Your task to perform on an android device: change notification settings in the gmail app Image 0: 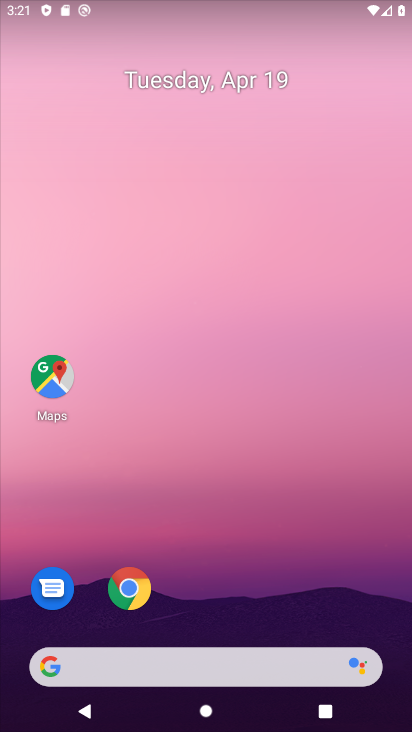
Step 0: drag from (240, 603) to (217, 140)
Your task to perform on an android device: change notification settings in the gmail app Image 1: 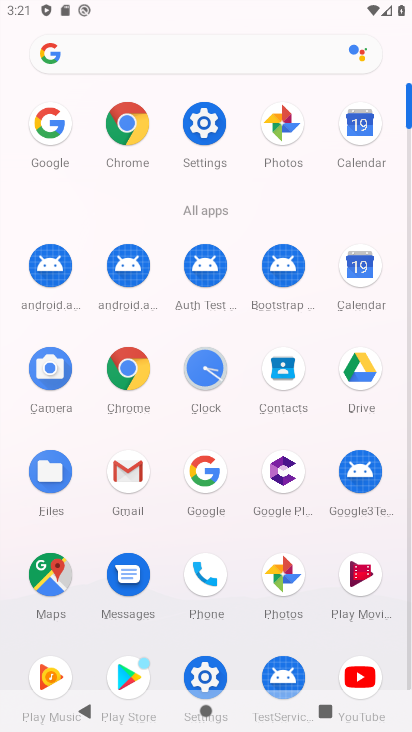
Step 1: click (207, 664)
Your task to perform on an android device: change notification settings in the gmail app Image 2: 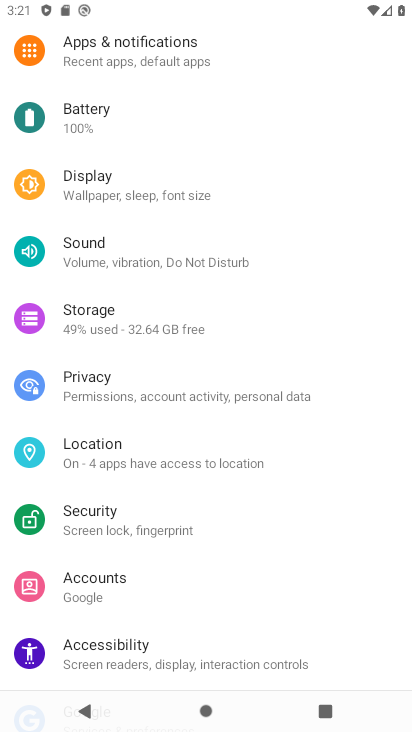
Step 2: press home button
Your task to perform on an android device: change notification settings in the gmail app Image 3: 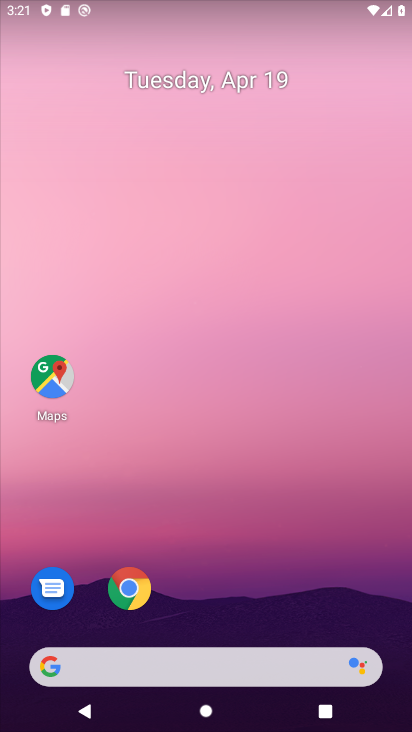
Step 3: drag from (247, 495) to (247, 88)
Your task to perform on an android device: change notification settings in the gmail app Image 4: 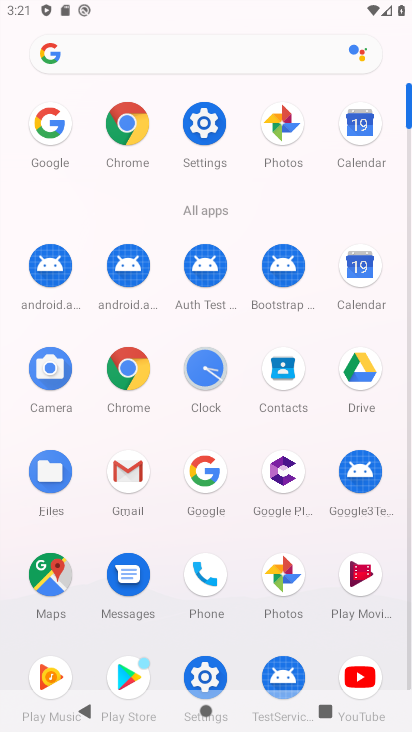
Step 4: click (121, 474)
Your task to perform on an android device: change notification settings in the gmail app Image 5: 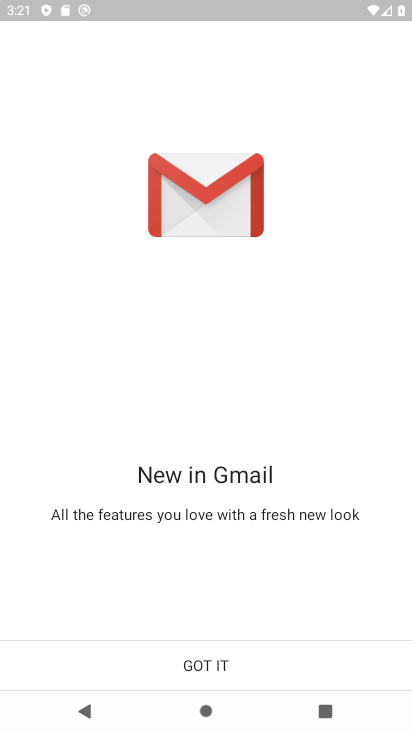
Step 5: click (208, 650)
Your task to perform on an android device: change notification settings in the gmail app Image 6: 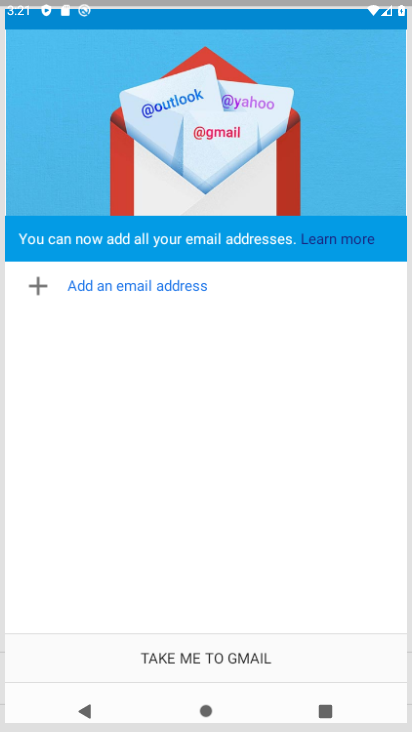
Step 6: click (210, 655)
Your task to perform on an android device: change notification settings in the gmail app Image 7: 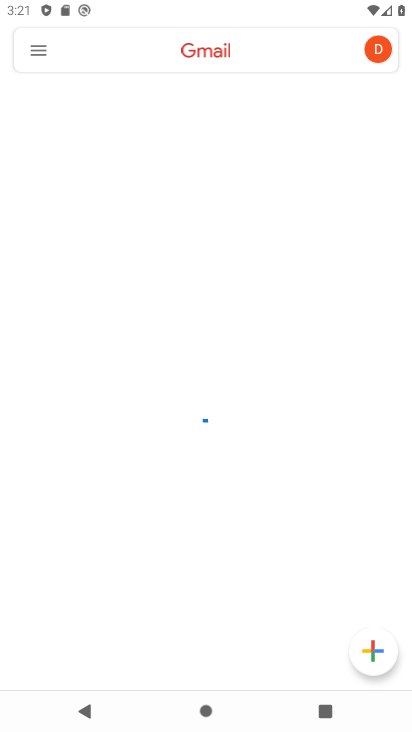
Step 7: click (36, 48)
Your task to perform on an android device: change notification settings in the gmail app Image 8: 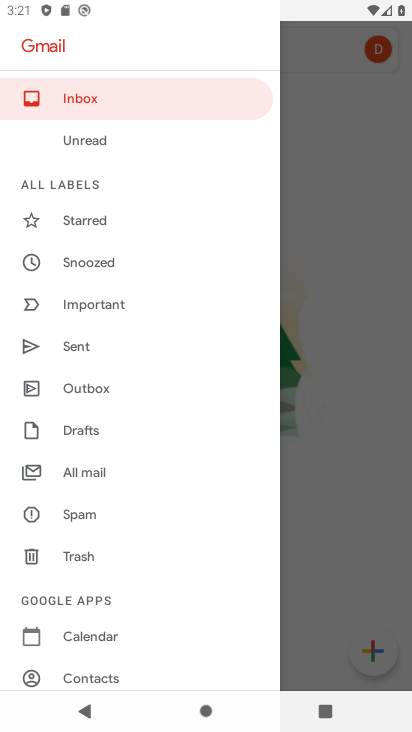
Step 8: drag from (112, 653) to (123, 302)
Your task to perform on an android device: change notification settings in the gmail app Image 9: 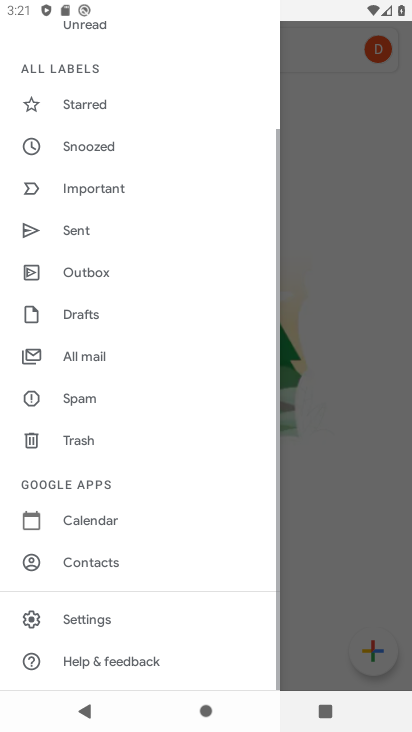
Step 9: click (90, 608)
Your task to perform on an android device: change notification settings in the gmail app Image 10: 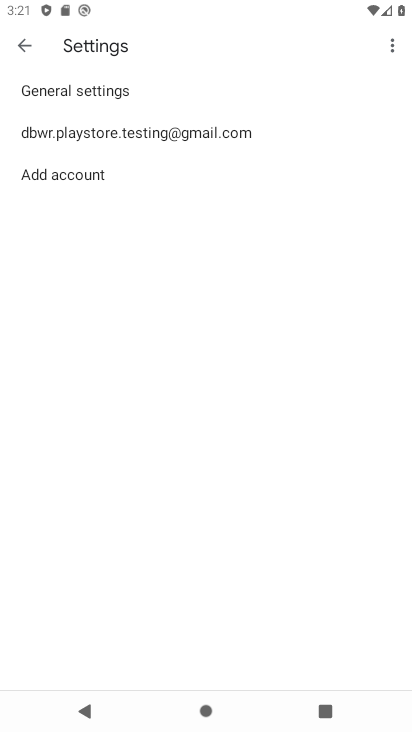
Step 10: click (121, 125)
Your task to perform on an android device: change notification settings in the gmail app Image 11: 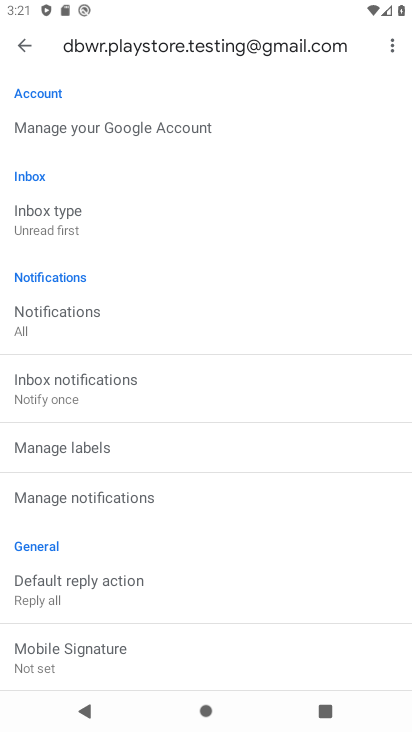
Step 11: click (132, 493)
Your task to perform on an android device: change notification settings in the gmail app Image 12: 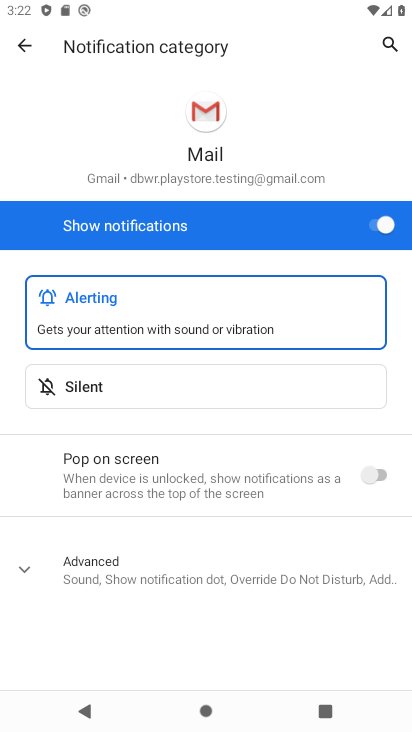
Step 12: click (379, 230)
Your task to perform on an android device: change notification settings in the gmail app Image 13: 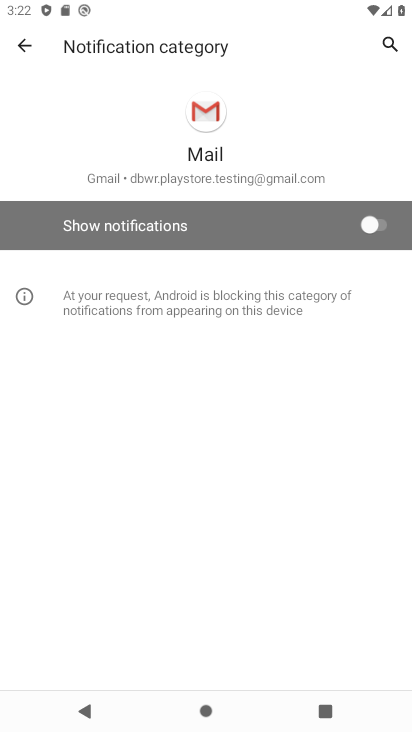
Step 13: task complete